Your task to perform on an android device: toggle location history Image 0: 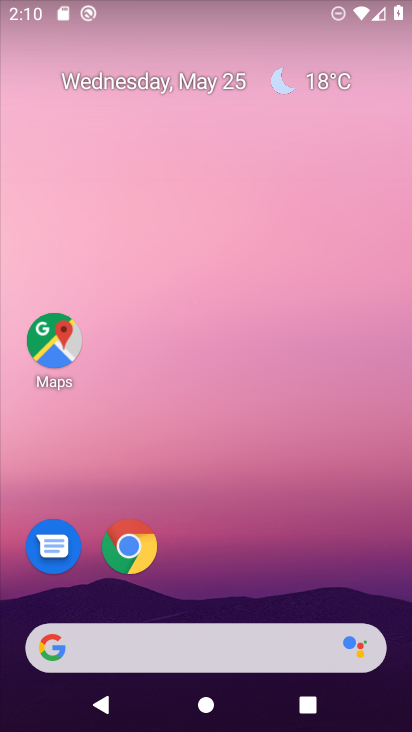
Step 0: drag from (252, 561) to (272, 0)
Your task to perform on an android device: toggle location history Image 1: 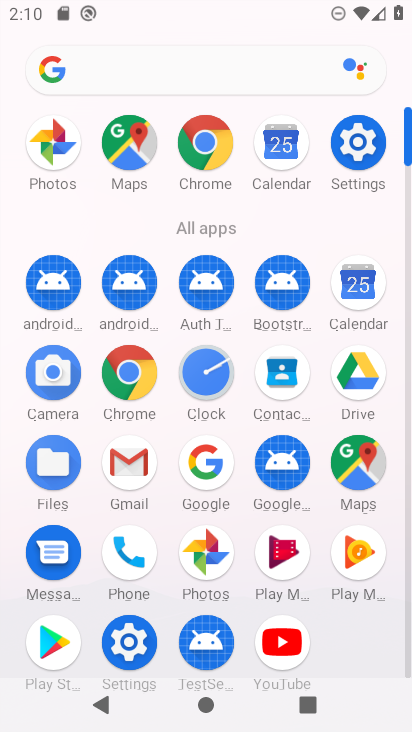
Step 1: click (139, 645)
Your task to perform on an android device: toggle location history Image 2: 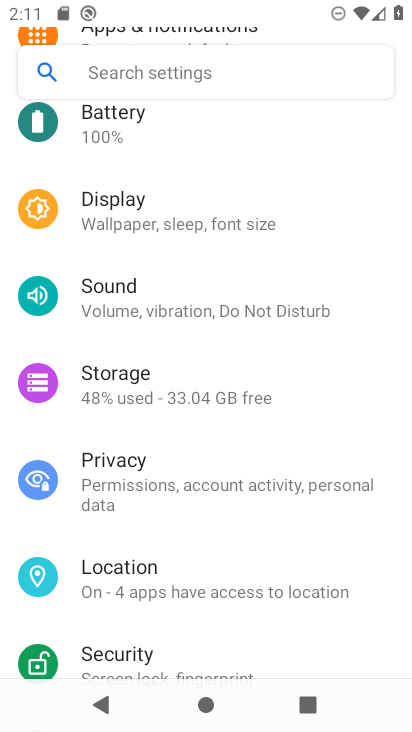
Step 2: click (165, 578)
Your task to perform on an android device: toggle location history Image 3: 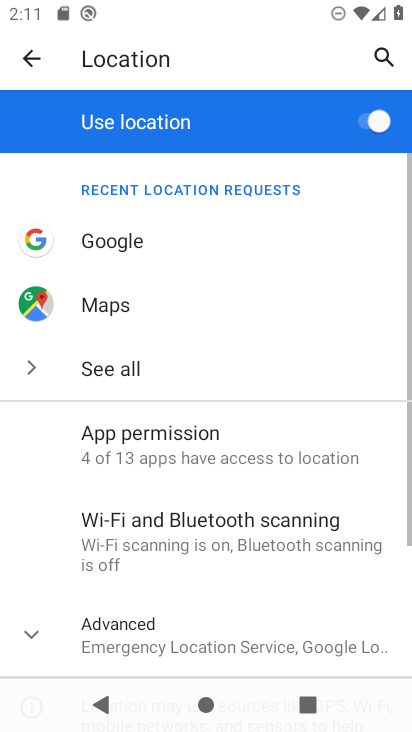
Step 3: drag from (192, 575) to (221, 394)
Your task to perform on an android device: toggle location history Image 4: 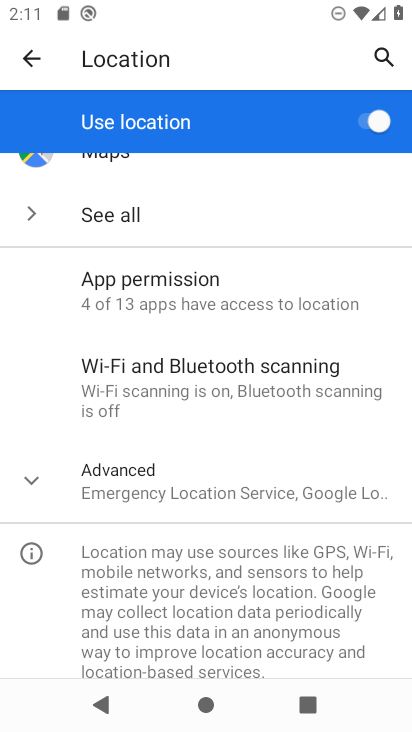
Step 4: click (193, 490)
Your task to perform on an android device: toggle location history Image 5: 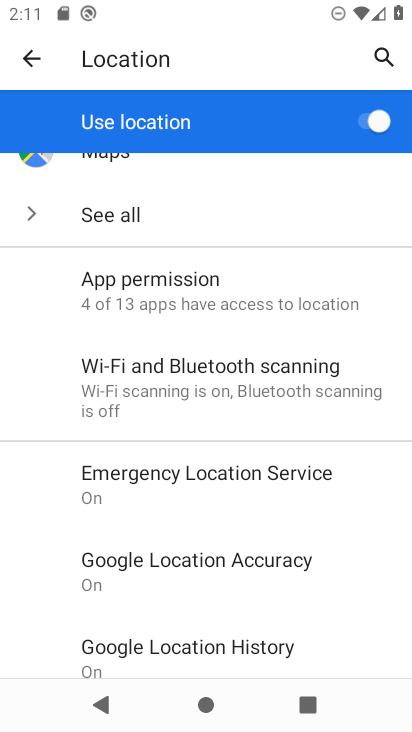
Step 5: drag from (223, 643) to (226, 555)
Your task to perform on an android device: toggle location history Image 6: 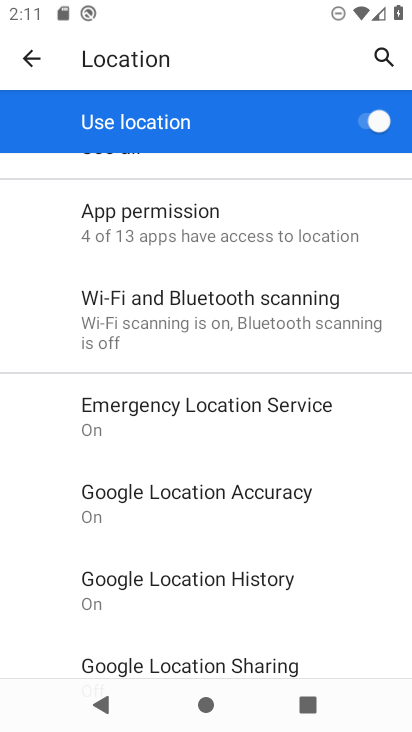
Step 6: click (212, 576)
Your task to perform on an android device: toggle location history Image 7: 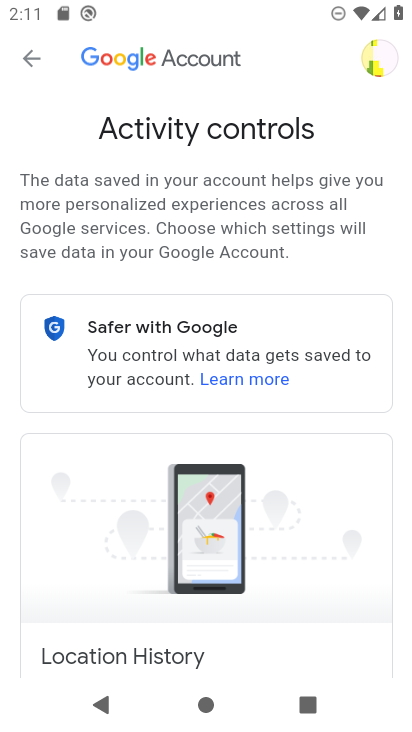
Step 7: drag from (148, 547) to (163, 191)
Your task to perform on an android device: toggle location history Image 8: 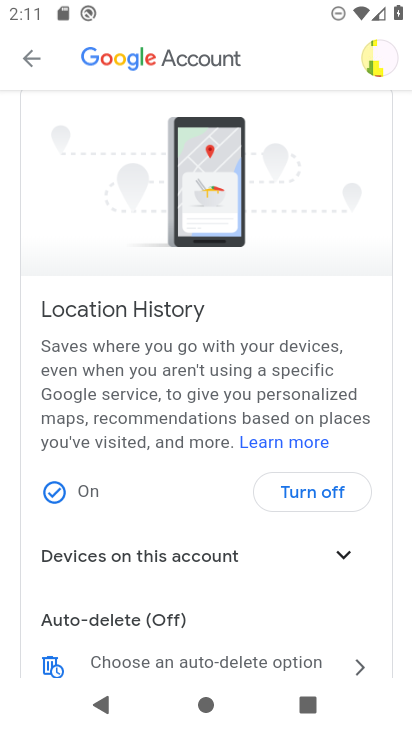
Step 8: click (301, 498)
Your task to perform on an android device: toggle location history Image 9: 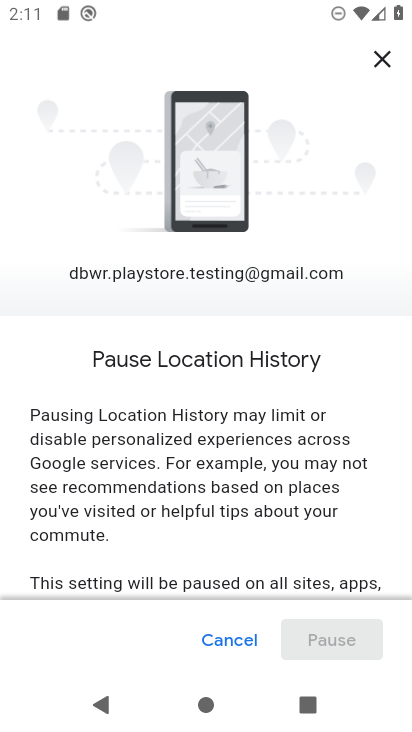
Step 9: drag from (267, 576) to (282, 284)
Your task to perform on an android device: toggle location history Image 10: 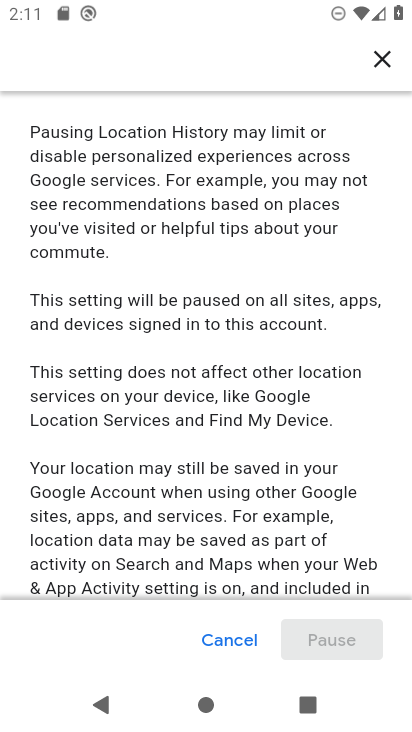
Step 10: drag from (248, 611) to (264, 361)
Your task to perform on an android device: toggle location history Image 11: 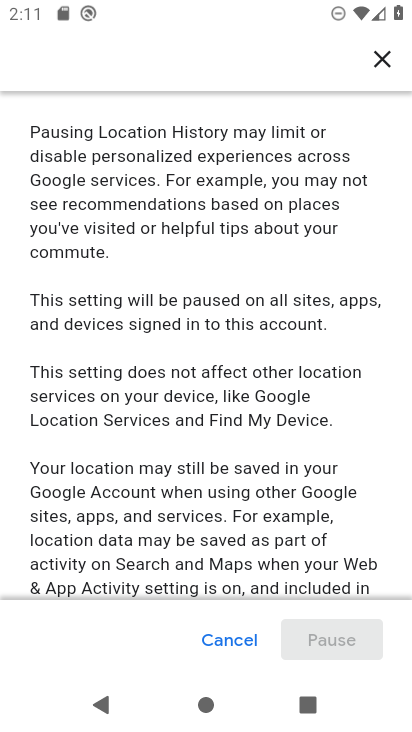
Step 11: drag from (210, 530) to (236, 225)
Your task to perform on an android device: toggle location history Image 12: 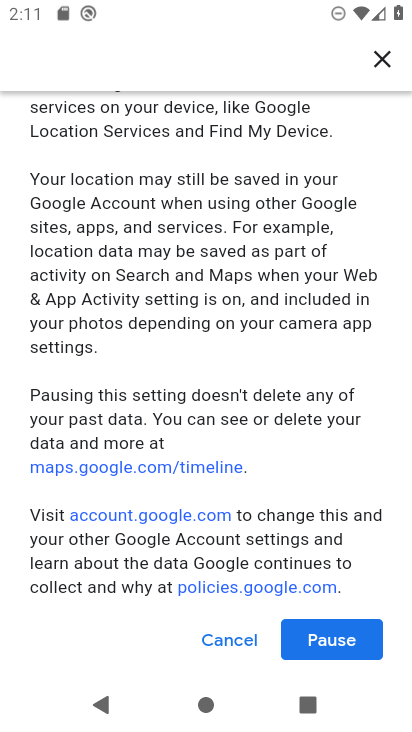
Step 12: click (368, 651)
Your task to perform on an android device: toggle location history Image 13: 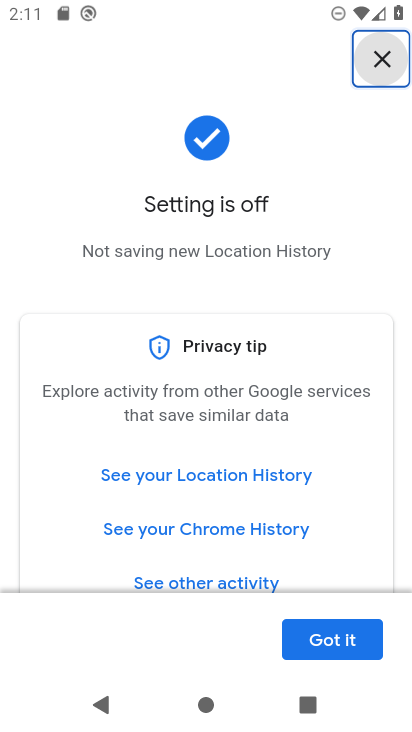
Step 13: click (309, 640)
Your task to perform on an android device: toggle location history Image 14: 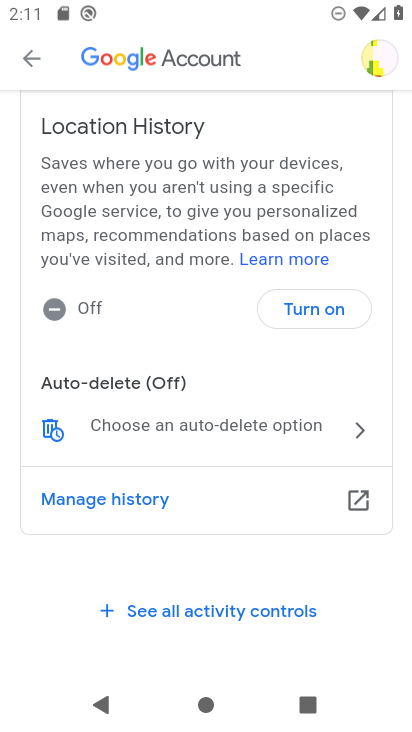
Step 14: task complete